Your task to perform on an android device: Open wifi settings Image 0: 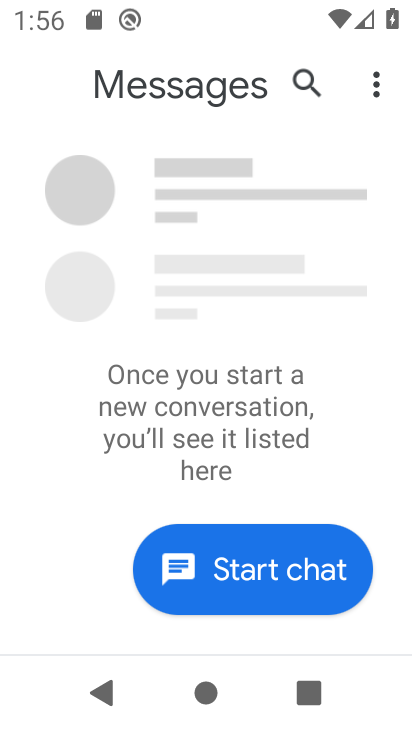
Step 0: press home button
Your task to perform on an android device: Open wifi settings Image 1: 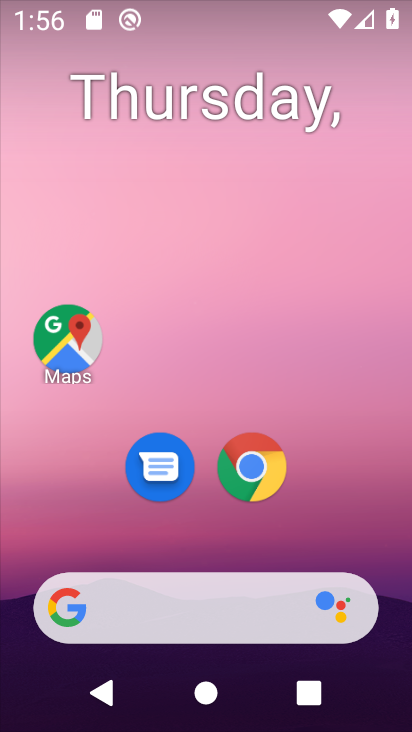
Step 1: drag from (227, 561) to (159, 15)
Your task to perform on an android device: Open wifi settings Image 2: 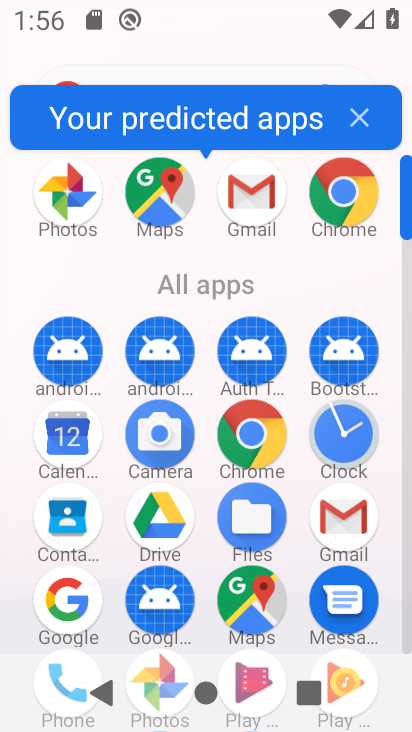
Step 2: drag from (210, 570) to (167, 110)
Your task to perform on an android device: Open wifi settings Image 3: 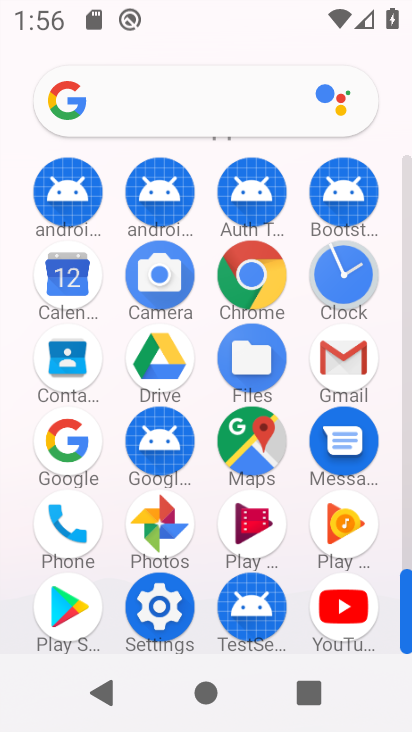
Step 3: click (179, 603)
Your task to perform on an android device: Open wifi settings Image 4: 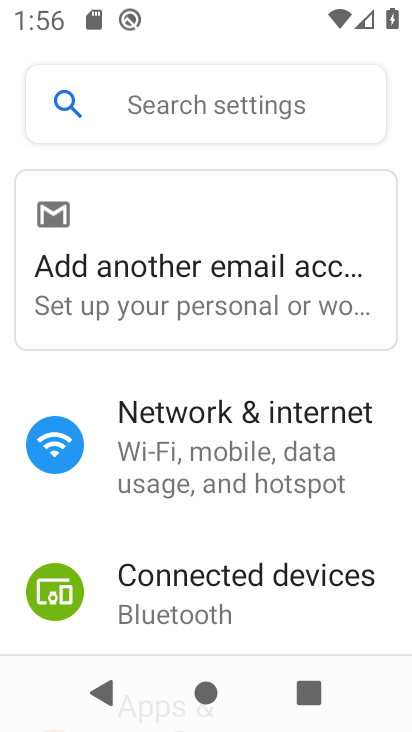
Step 4: click (210, 414)
Your task to perform on an android device: Open wifi settings Image 5: 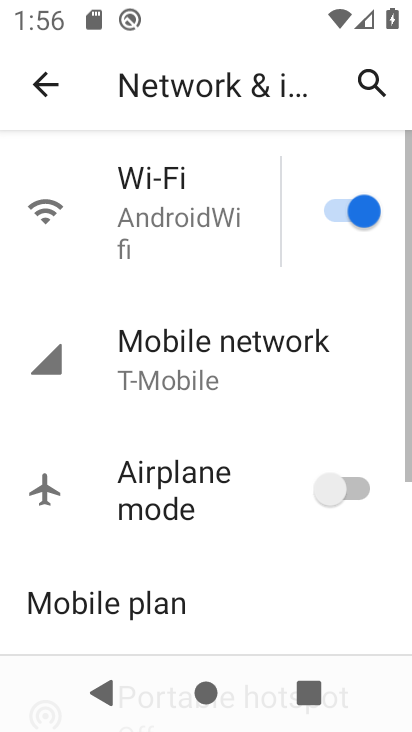
Step 5: click (196, 227)
Your task to perform on an android device: Open wifi settings Image 6: 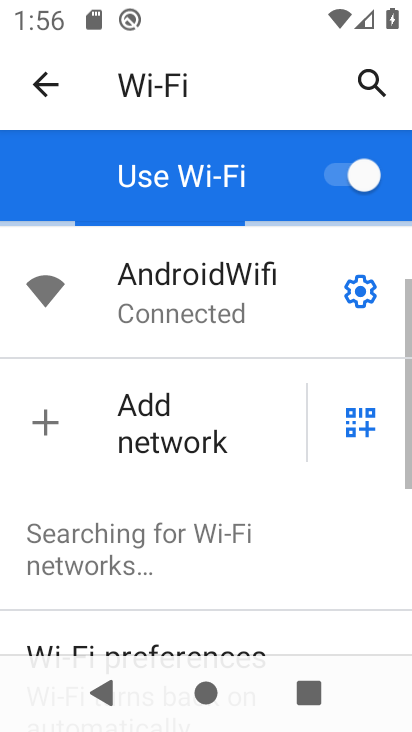
Step 6: task complete